Your task to perform on an android device: Show the shopping cart on costco.com. Image 0: 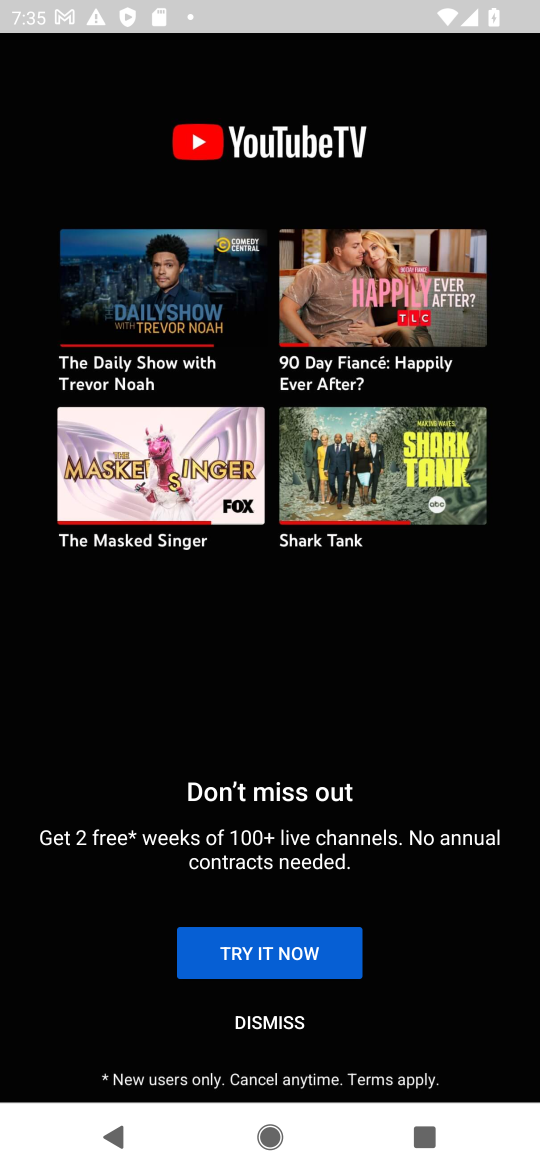
Step 0: press home button
Your task to perform on an android device: Show the shopping cart on costco.com. Image 1: 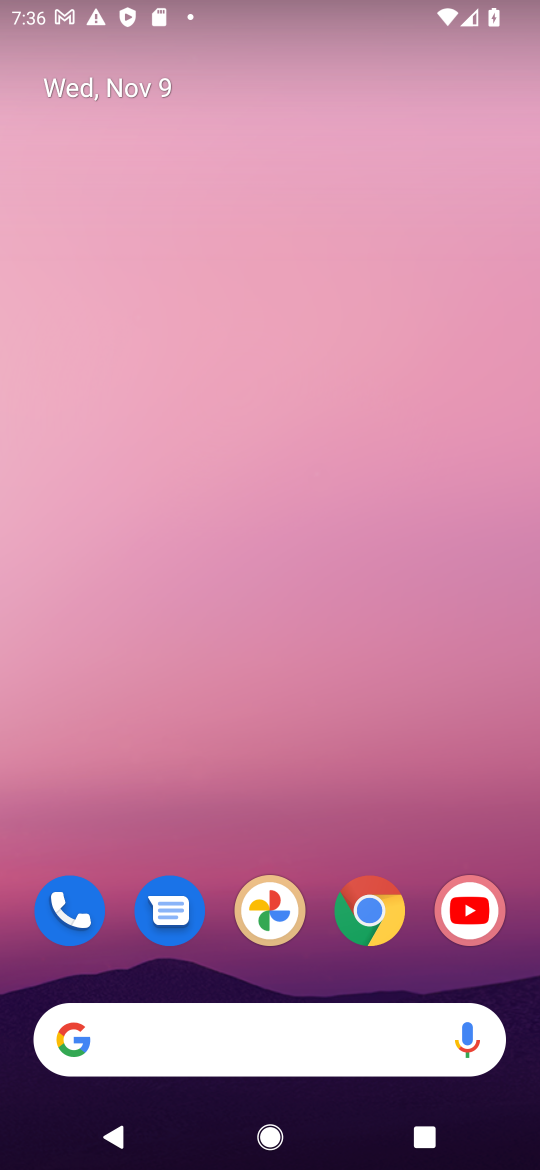
Step 1: click (372, 923)
Your task to perform on an android device: Show the shopping cart on costco.com. Image 2: 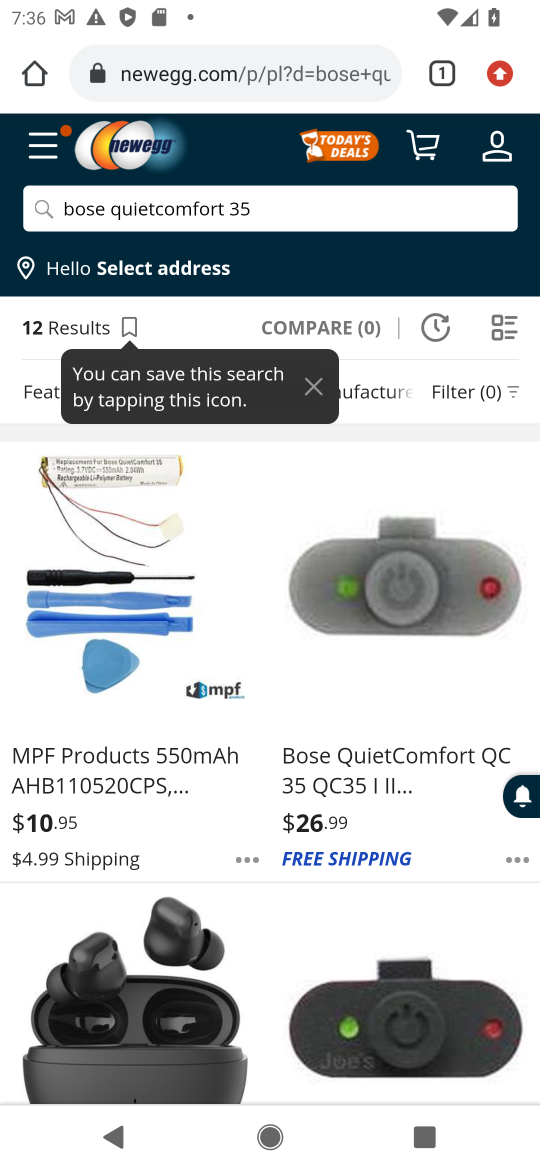
Step 2: click (247, 74)
Your task to perform on an android device: Show the shopping cart on costco.com. Image 3: 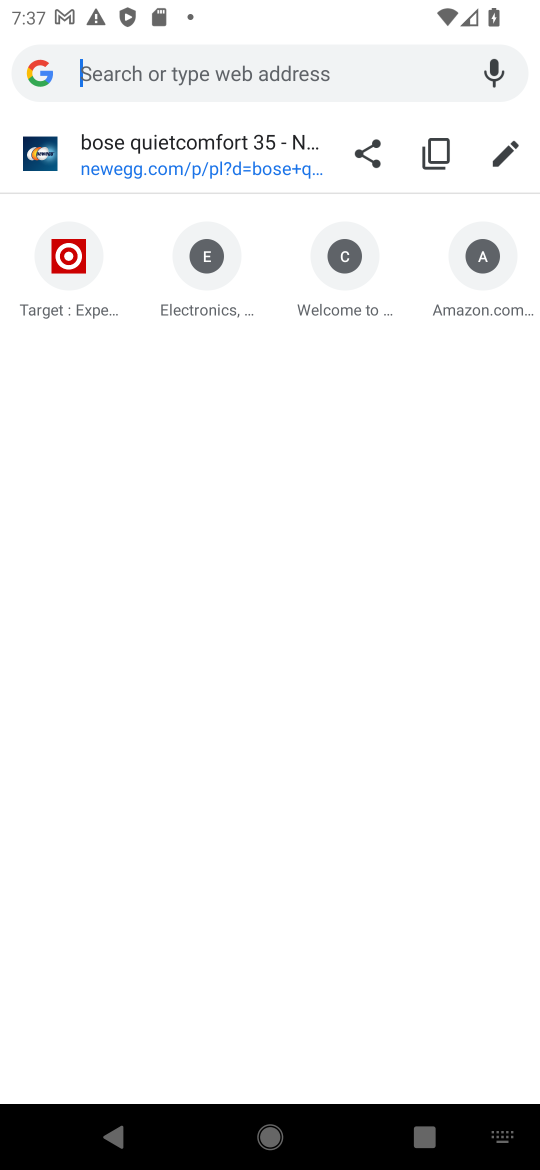
Step 3: type "costco.com"
Your task to perform on an android device: Show the shopping cart on costco.com. Image 4: 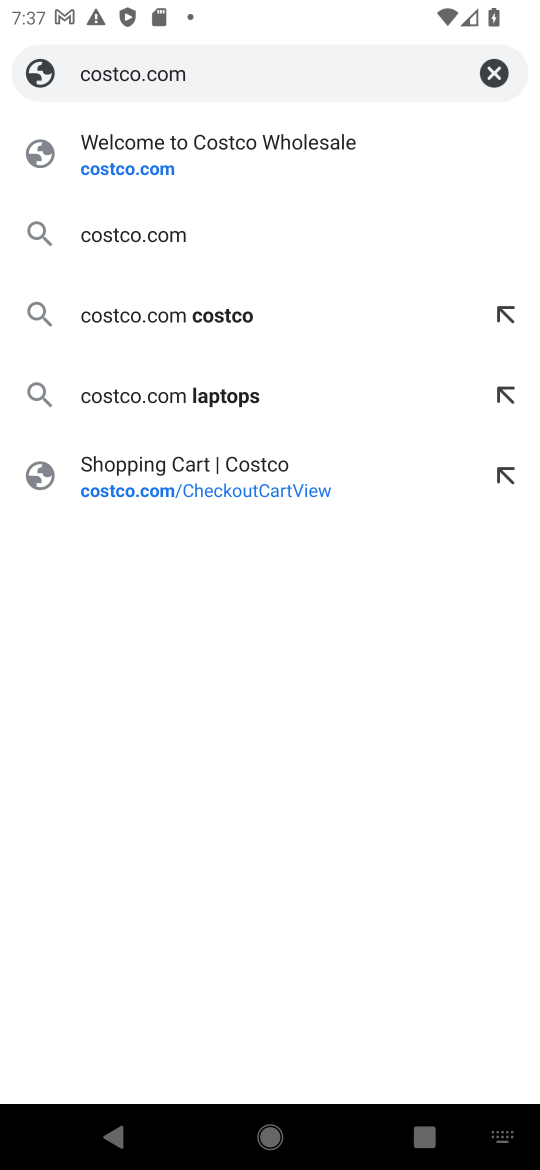
Step 4: click (132, 170)
Your task to perform on an android device: Show the shopping cart on costco.com. Image 5: 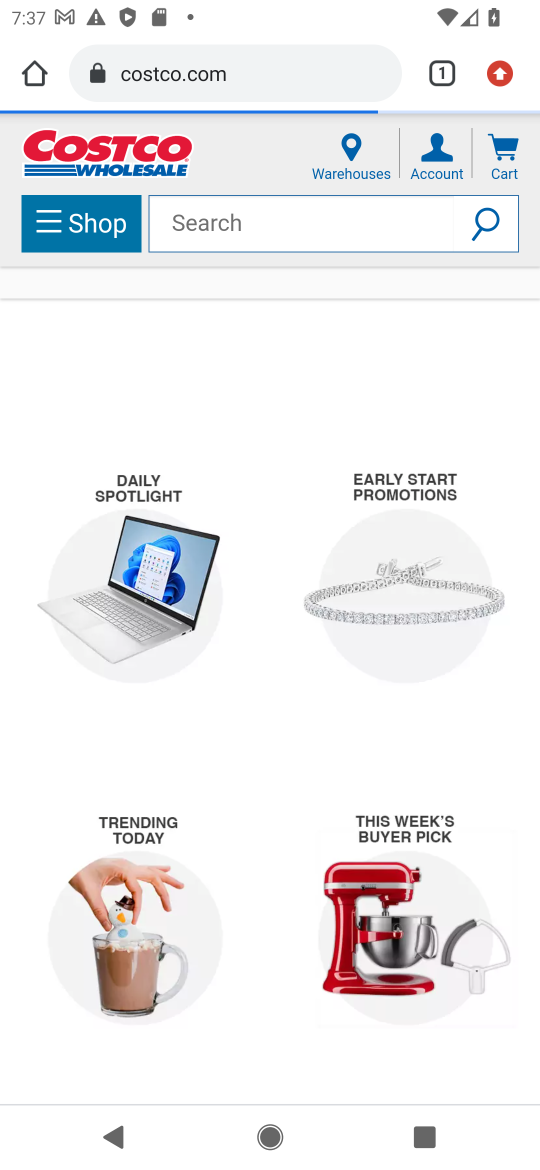
Step 5: click (500, 159)
Your task to perform on an android device: Show the shopping cart on costco.com. Image 6: 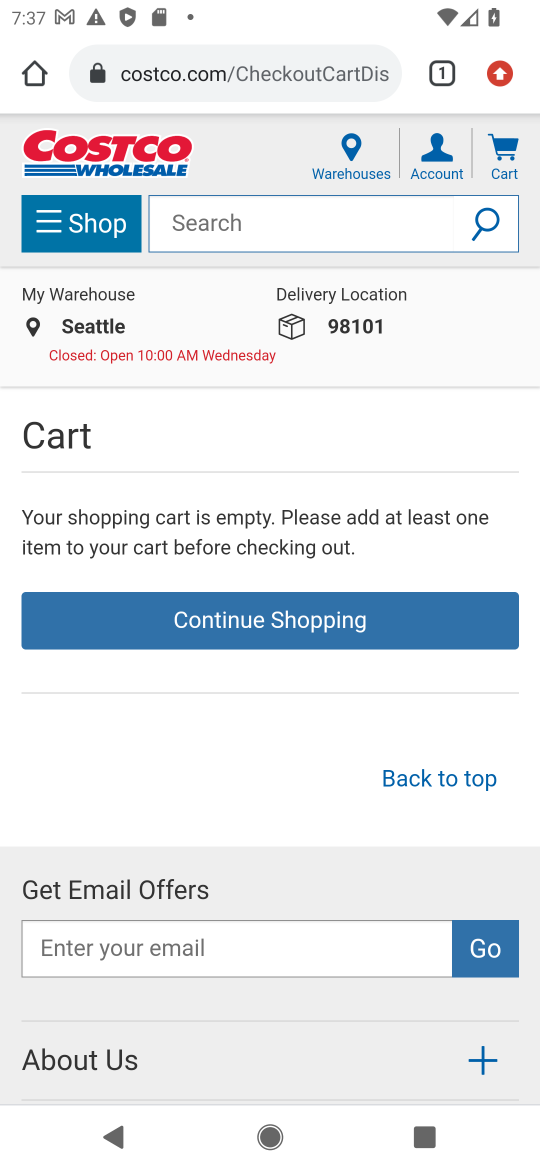
Step 6: task complete